Your task to perform on an android device: empty trash in google photos Image 0: 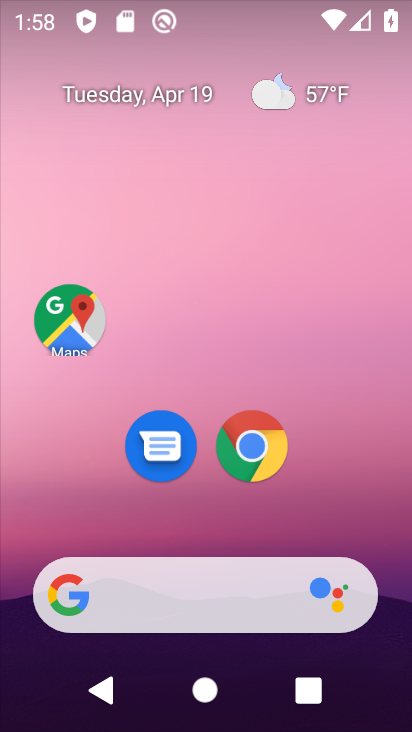
Step 0: drag from (320, 459) to (29, 305)
Your task to perform on an android device: empty trash in google photos Image 1: 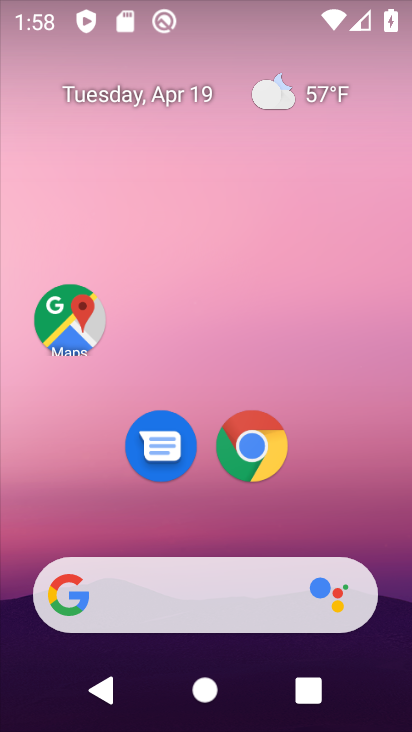
Step 1: drag from (362, 410) to (356, 32)
Your task to perform on an android device: empty trash in google photos Image 2: 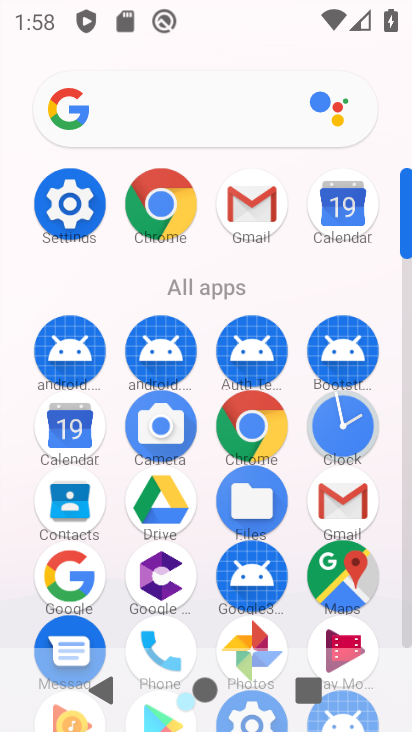
Step 2: drag from (391, 594) to (342, 99)
Your task to perform on an android device: empty trash in google photos Image 3: 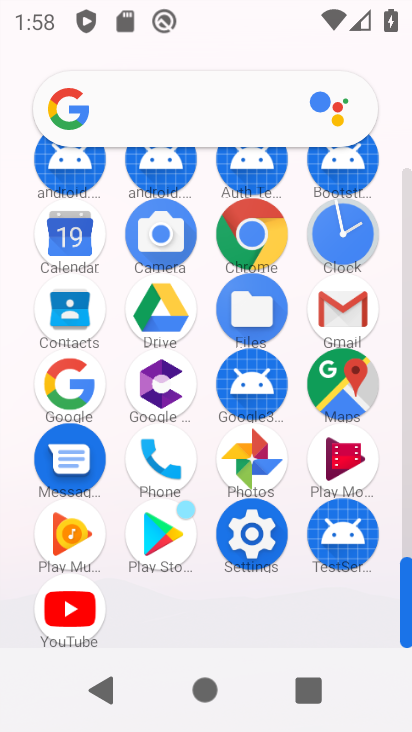
Step 3: click (256, 451)
Your task to perform on an android device: empty trash in google photos Image 4: 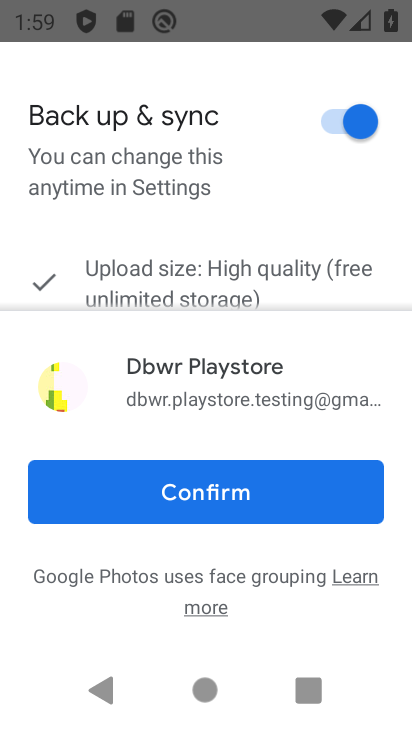
Step 4: click (240, 484)
Your task to perform on an android device: empty trash in google photos Image 5: 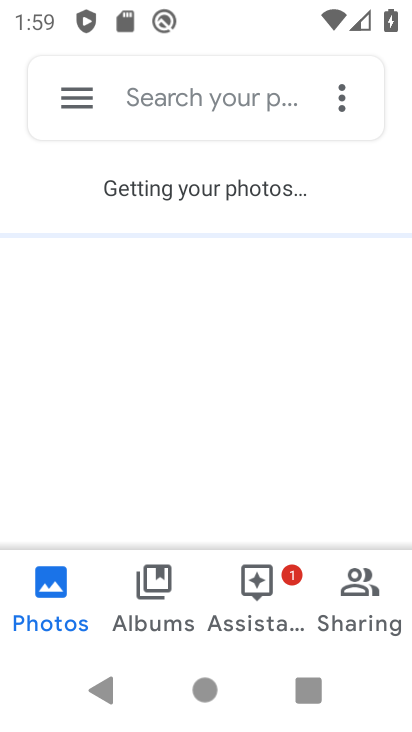
Step 5: click (59, 100)
Your task to perform on an android device: empty trash in google photos Image 6: 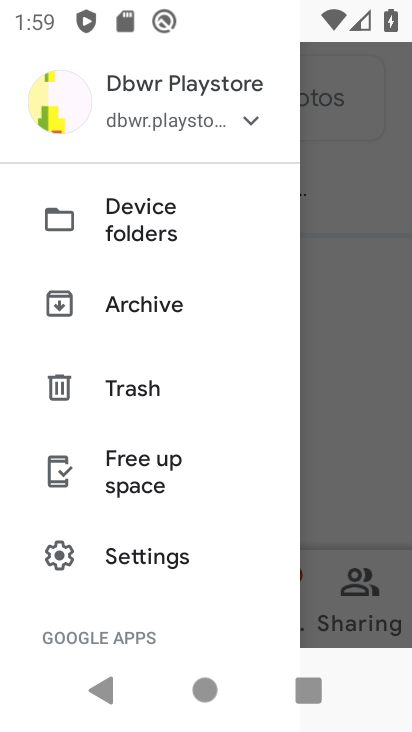
Step 6: click (122, 404)
Your task to perform on an android device: empty trash in google photos Image 7: 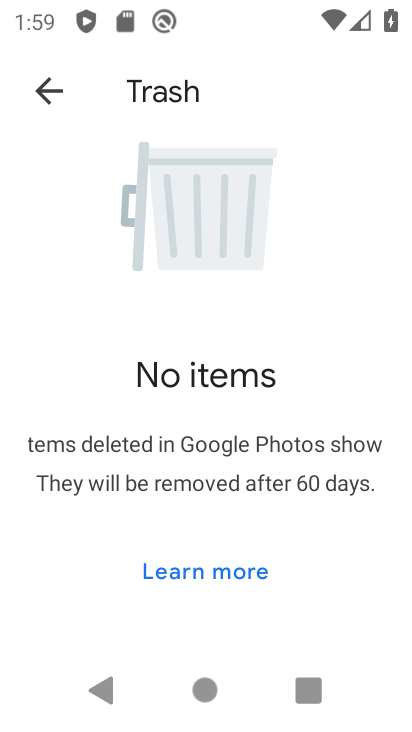
Step 7: task complete